Your task to perform on an android device: Go to location settings Image 0: 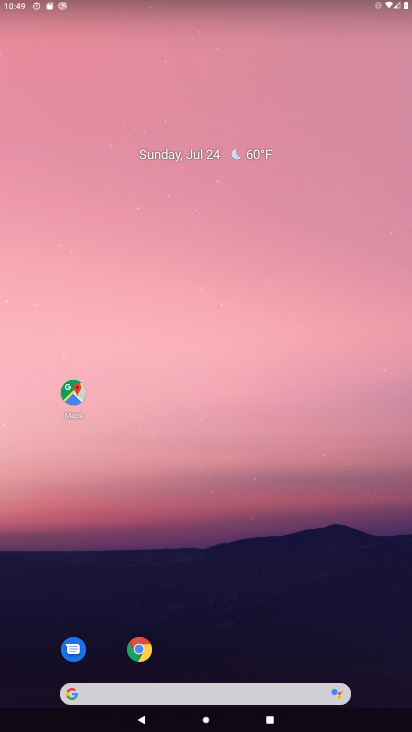
Step 0: drag from (337, 634) to (332, 97)
Your task to perform on an android device: Go to location settings Image 1: 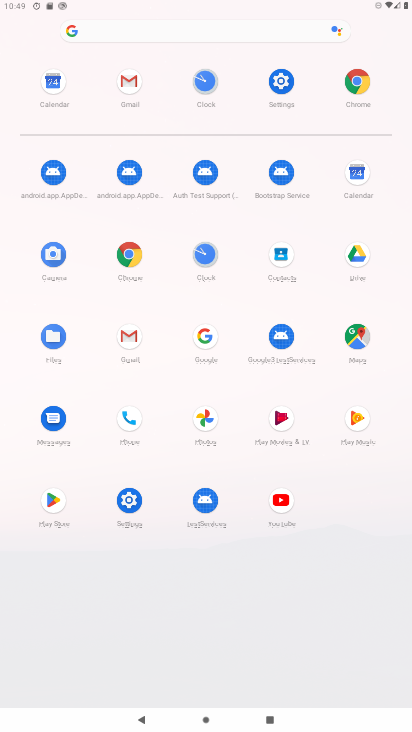
Step 1: click (282, 77)
Your task to perform on an android device: Go to location settings Image 2: 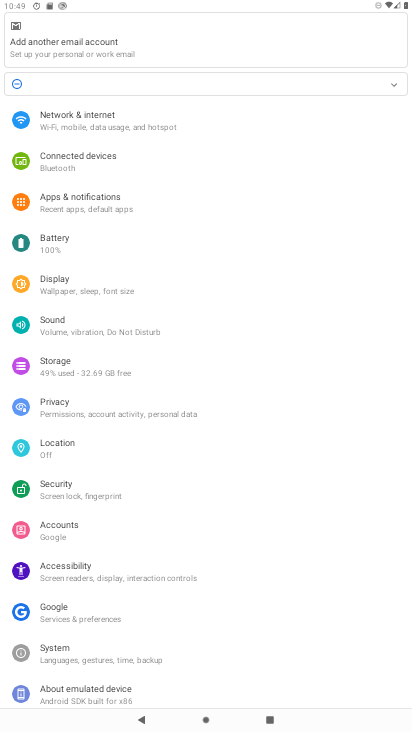
Step 2: click (60, 442)
Your task to perform on an android device: Go to location settings Image 3: 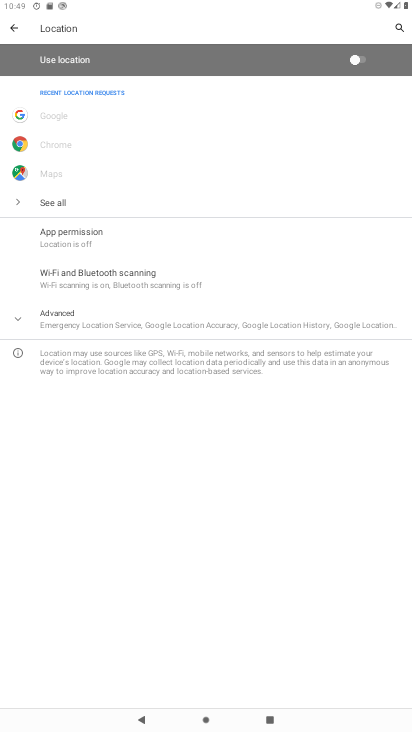
Step 3: click (172, 330)
Your task to perform on an android device: Go to location settings Image 4: 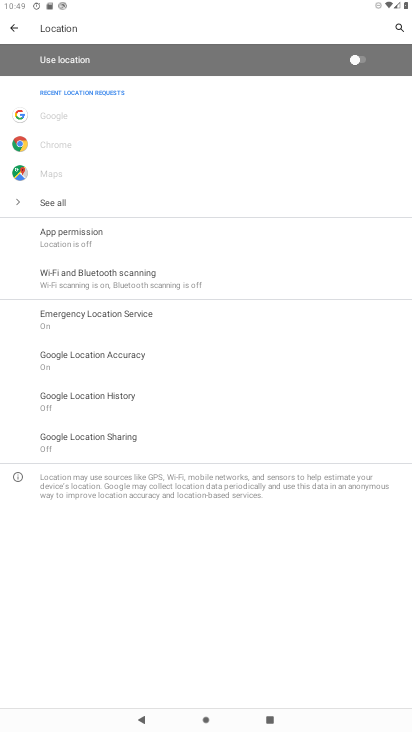
Step 4: task complete